Your task to perform on an android device: find snoozed emails in the gmail app Image 0: 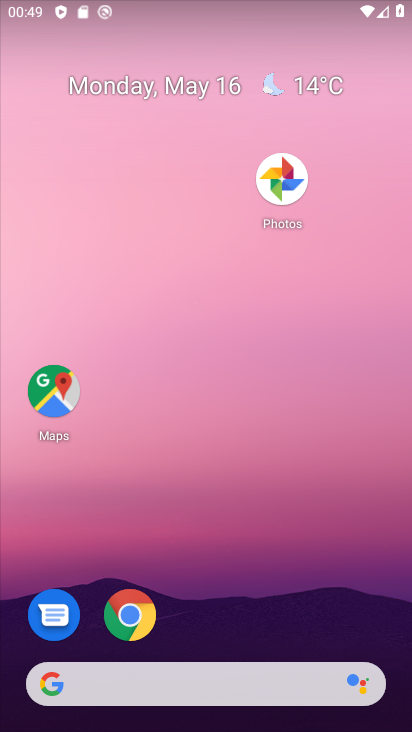
Step 0: drag from (306, 620) to (304, 219)
Your task to perform on an android device: find snoozed emails in the gmail app Image 1: 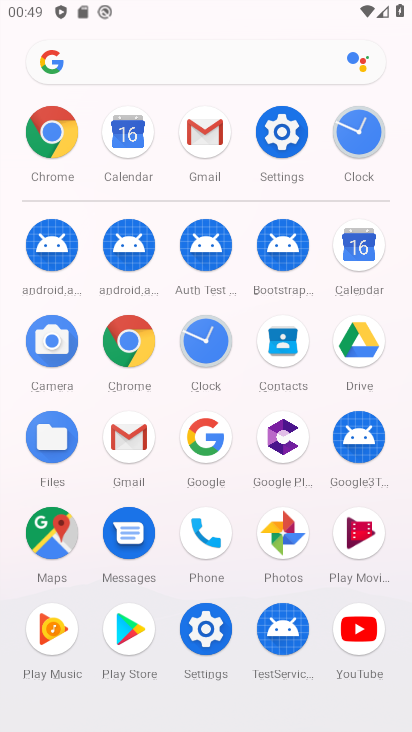
Step 1: click (115, 450)
Your task to perform on an android device: find snoozed emails in the gmail app Image 2: 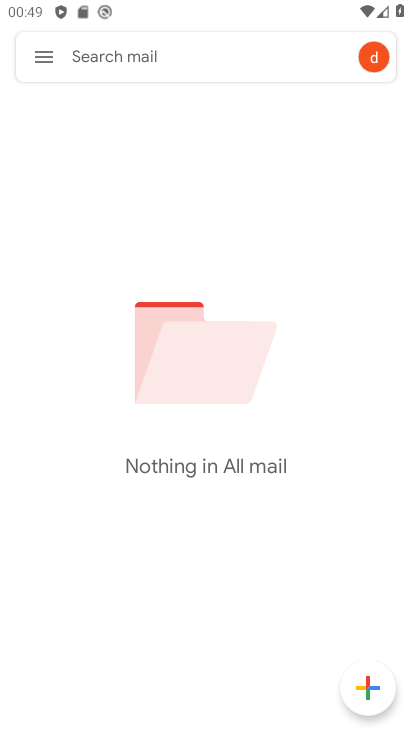
Step 2: click (36, 50)
Your task to perform on an android device: find snoozed emails in the gmail app Image 3: 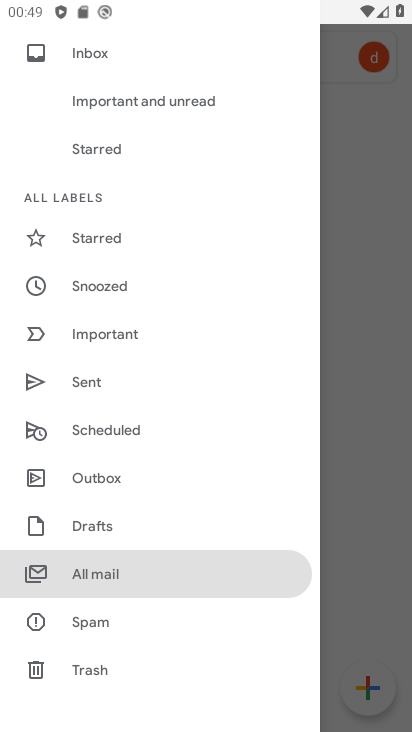
Step 3: click (93, 304)
Your task to perform on an android device: find snoozed emails in the gmail app Image 4: 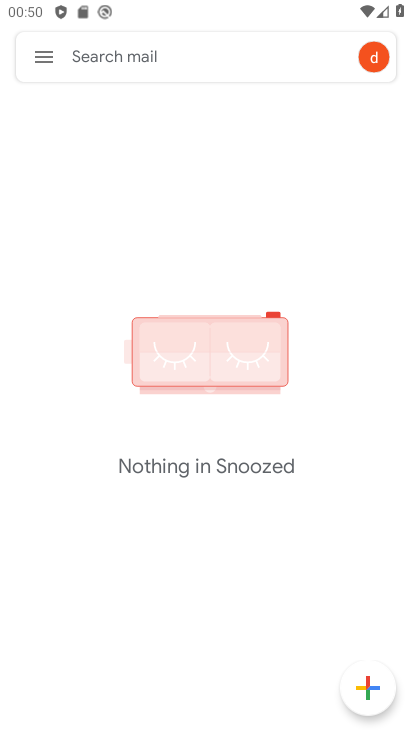
Step 4: task complete